Your task to perform on an android device: Open Android settings Image 0: 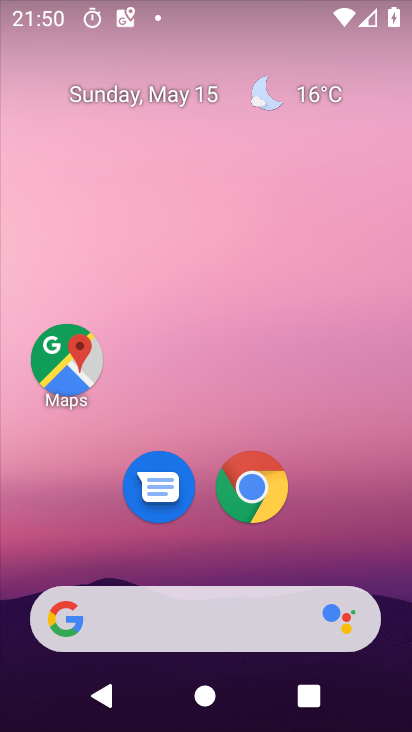
Step 0: drag from (380, 541) to (340, 290)
Your task to perform on an android device: Open Android settings Image 1: 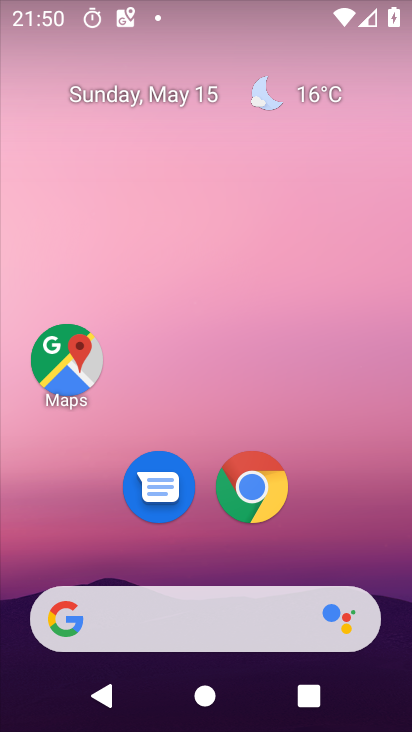
Step 1: drag from (393, 624) to (372, 274)
Your task to perform on an android device: Open Android settings Image 2: 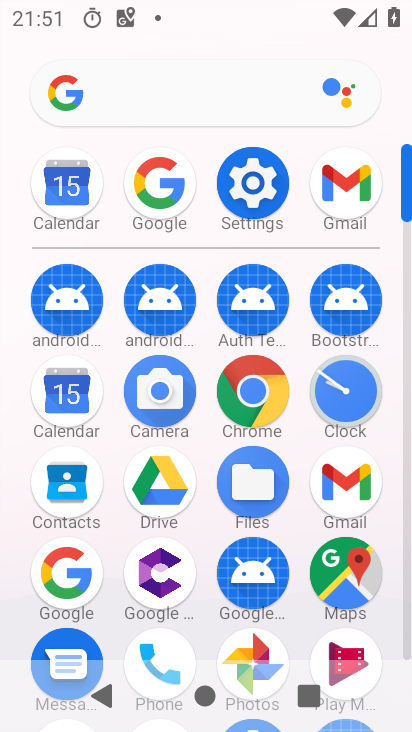
Step 2: click (246, 183)
Your task to perform on an android device: Open Android settings Image 3: 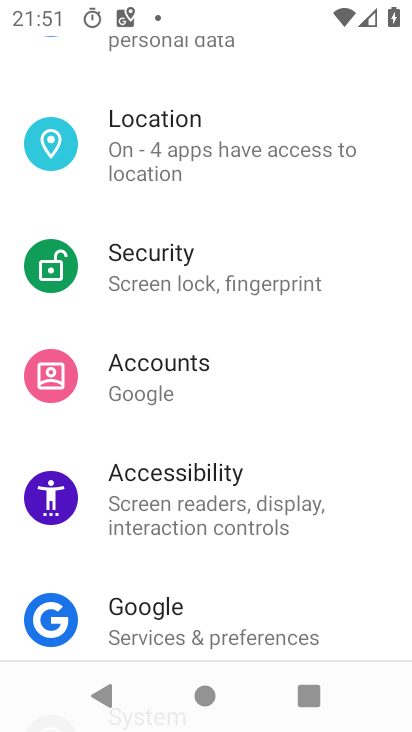
Step 3: task complete